Your task to perform on an android device: turn on translation in the chrome app Image 0: 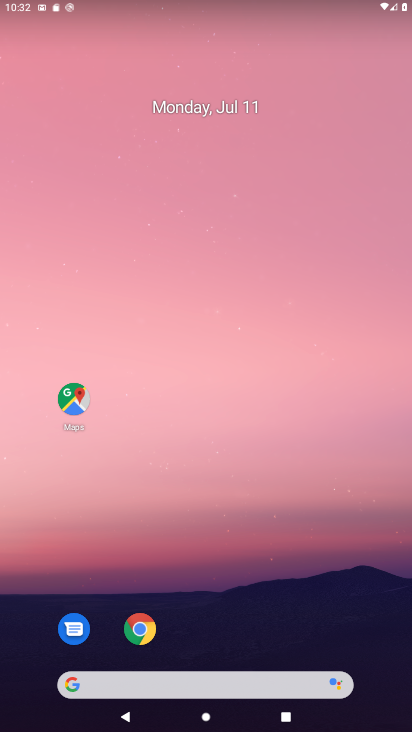
Step 0: click (137, 623)
Your task to perform on an android device: turn on translation in the chrome app Image 1: 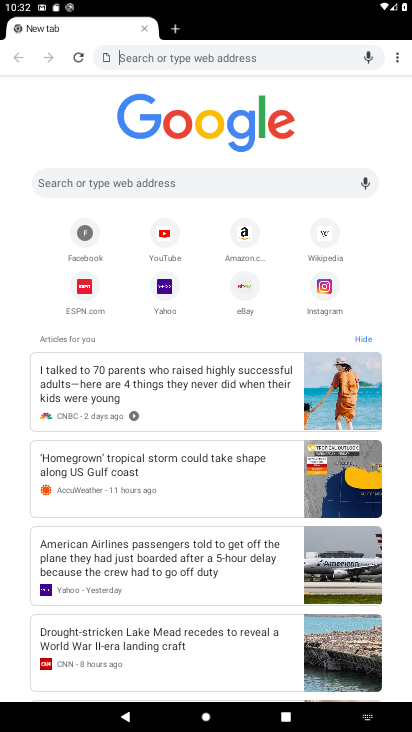
Step 1: click (404, 60)
Your task to perform on an android device: turn on translation in the chrome app Image 2: 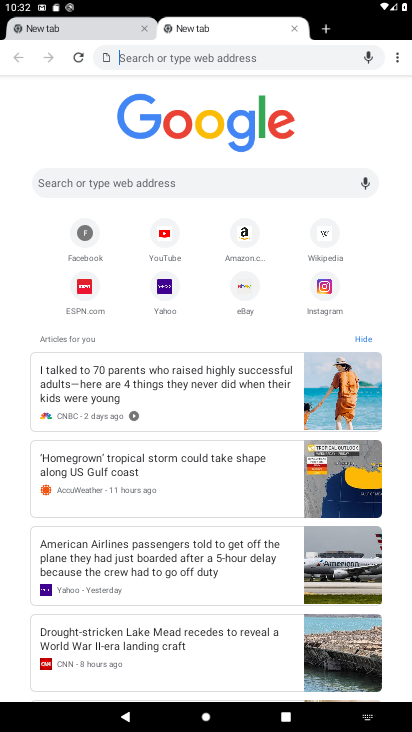
Step 2: click (393, 52)
Your task to perform on an android device: turn on translation in the chrome app Image 3: 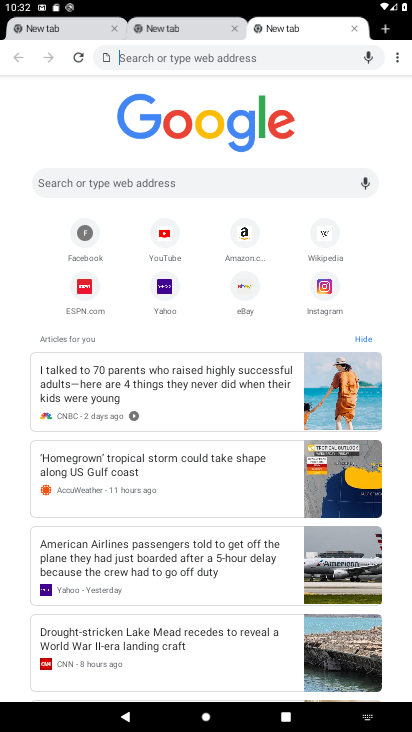
Step 3: click (402, 62)
Your task to perform on an android device: turn on translation in the chrome app Image 4: 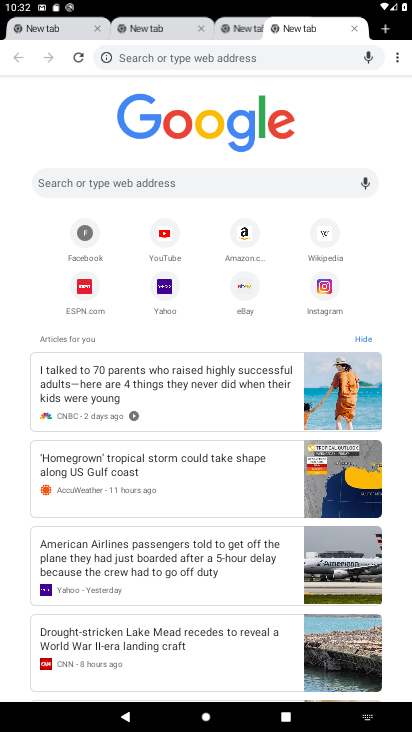
Step 4: click (397, 54)
Your task to perform on an android device: turn on translation in the chrome app Image 5: 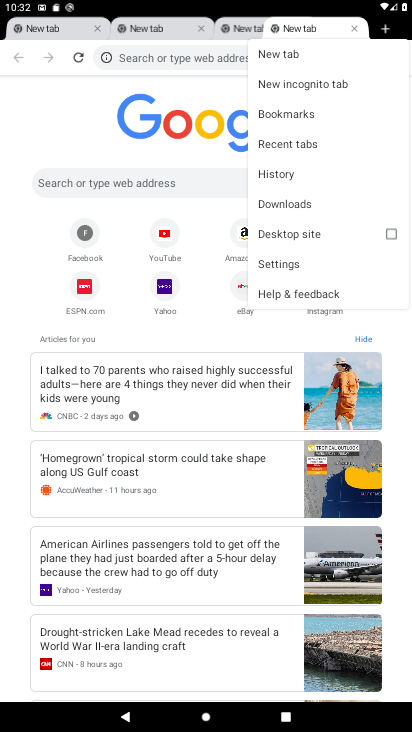
Step 5: click (296, 259)
Your task to perform on an android device: turn on translation in the chrome app Image 6: 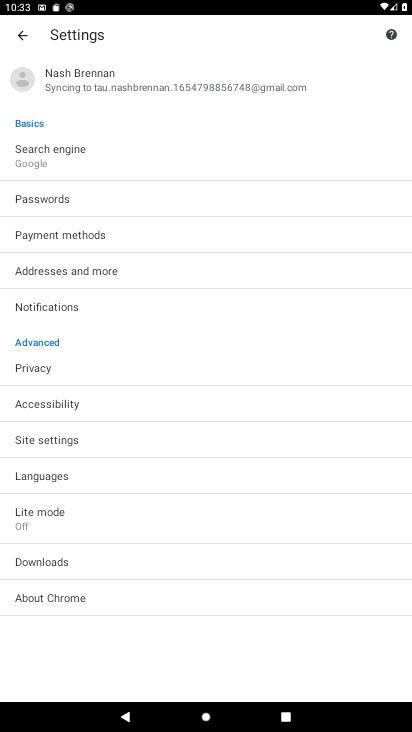
Step 6: click (63, 471)
Your task to perform on an android device: turn on translation in the chrome app Image 7: 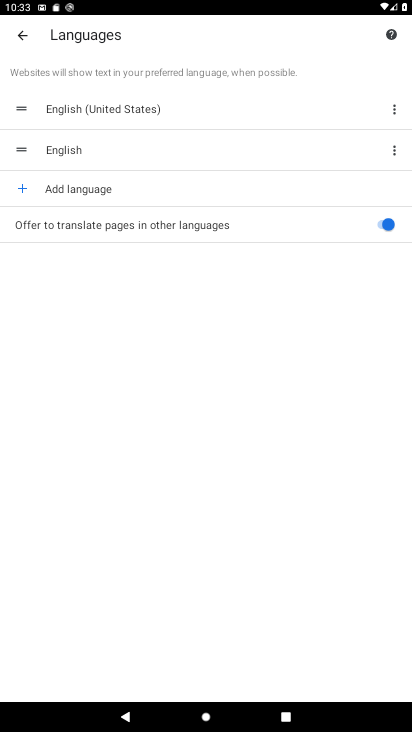
Step 7: task complete